Your task to perform on an android device: open wifi settings Image 0: 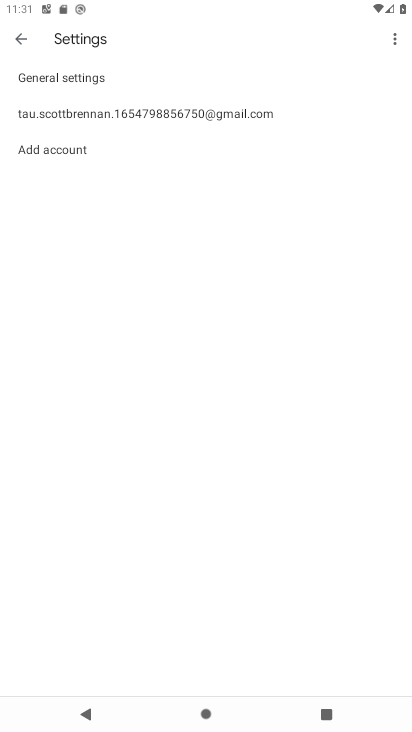
Step 0: press home button
Your task to perform on an android device: open wifi settings Image 1: 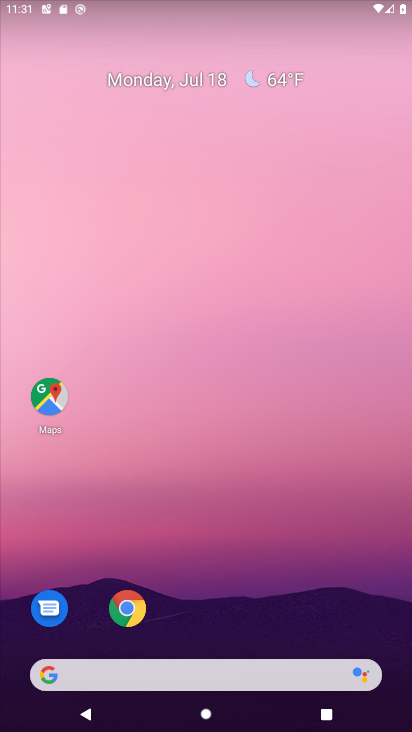
Step 1: drag from (272, 565) to (189, 12)
Your task to perform on an android device: open wifi settings Image 2: 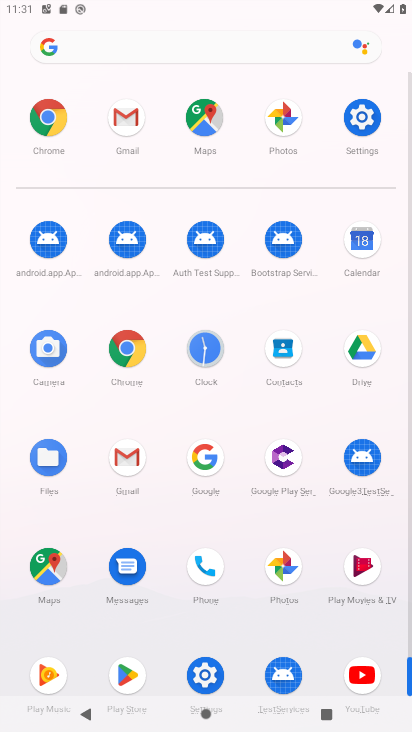
Step 2: click (355, 138)
Your task to perform on an android device: open wifi settings Image 3: 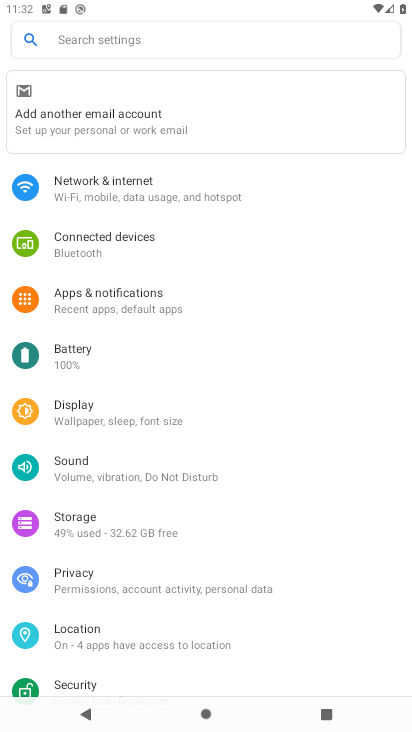
Step 3: click (166, 192)
Your task to perform on an android device: open wifi settings Image 4: 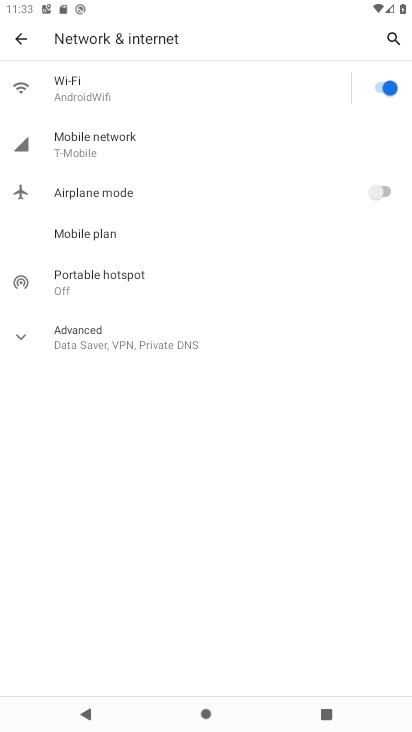
Step 4: click (104, 107)
Your task to perform on an android device: open wifi settings Image 5: 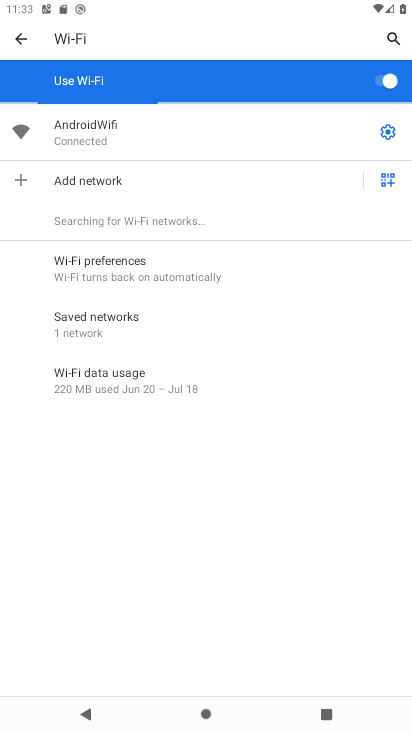
Step 5: task complete